Your task to perform on an android device: Go to accessibility settings Image 0: 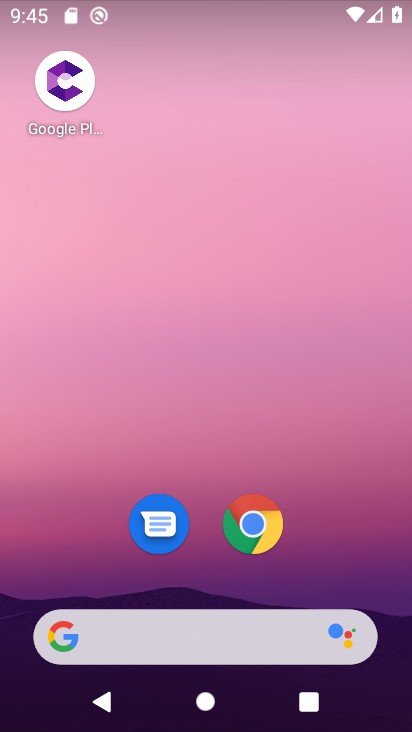
Step 0: drag from (320, 553) to (300, 46)
Your task to perform on an android device: Go to accessibility settings Image 1: 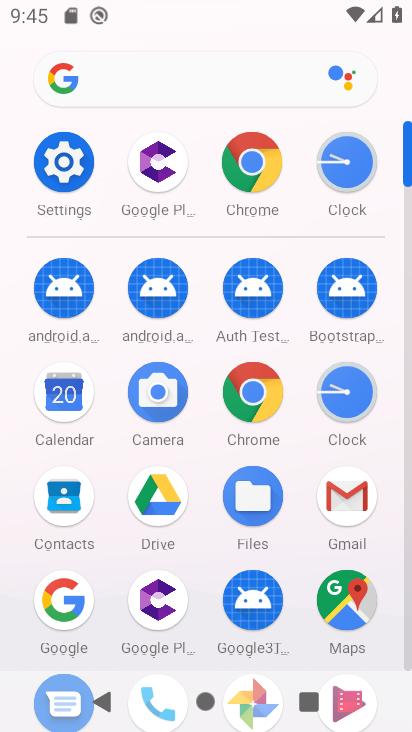
Step 1: click (71, 158)
Your task to perform on an android device: Go to accessibility settings Image 2: 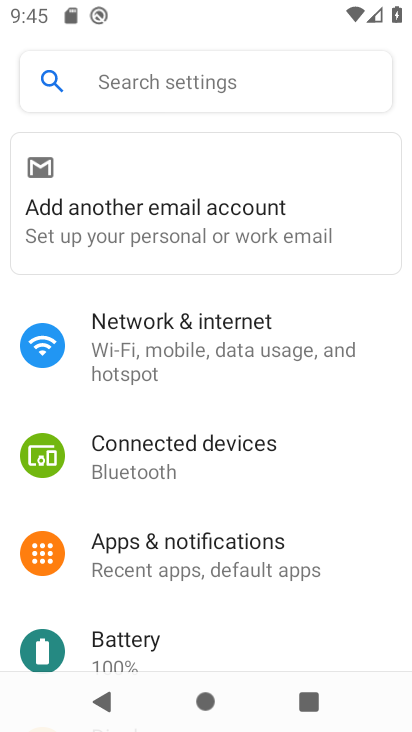
Step 2: drag from (200, 605) to (253, 108)
Your task to perform on an android device: Go to accessibility settings Image 3: 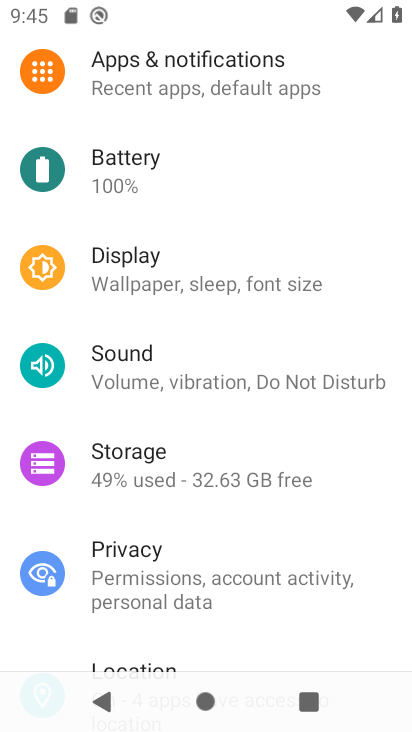
Step 3: drag from (182, 530) to (233, 80)
Your task to perform on an android device: Go to accessibility settings Image 4: 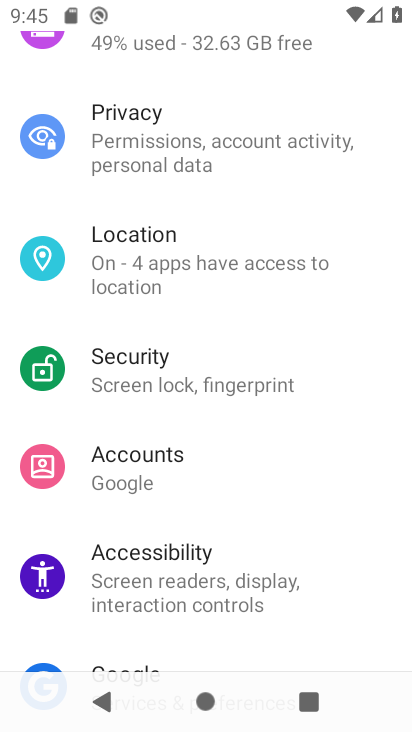
Step 4: click (197, 590)
Your task to perform on an android device: Go to accessibility settings Image 5: 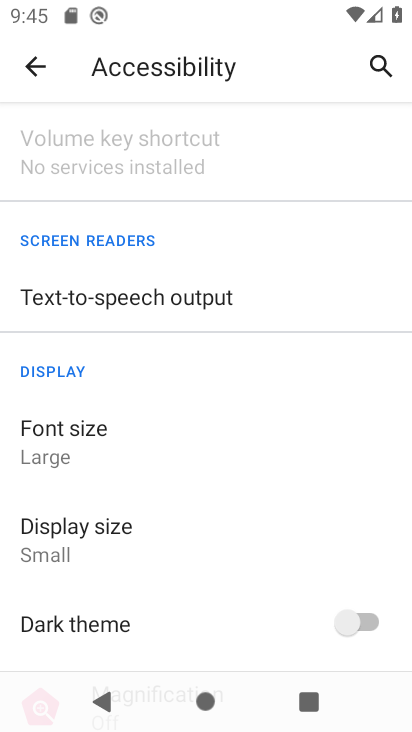
Step 5: task complete